Your task to perform on an android device: toggle sleep mode Image 0: 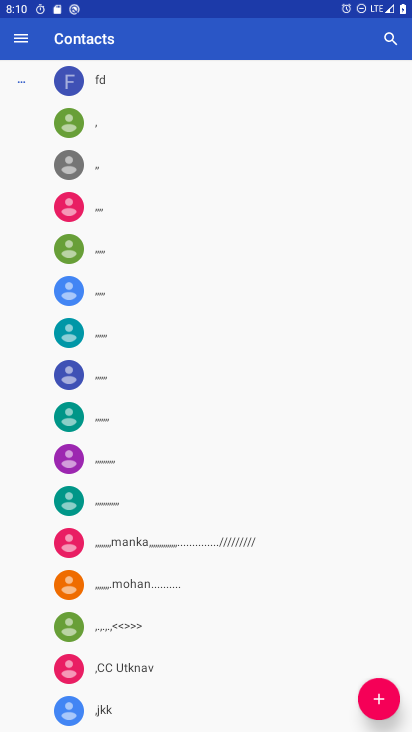
Step 0: press home button
Your task to perform on an android device: toggle sleep mode Image 1: 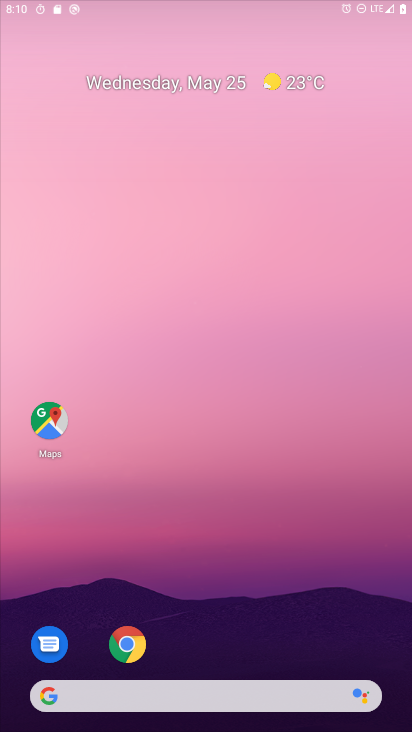
Step 1: drag from (372, 644) to (351, 62)
Your task to perform on an android device: toggle sleep mode Image 2: 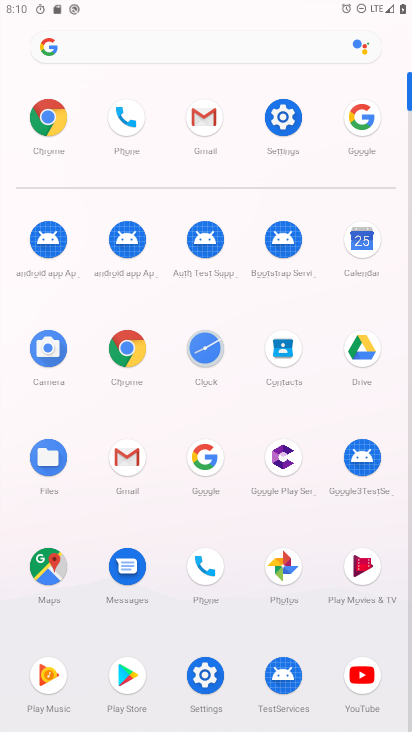
Step 2: click (282, 127)
Your task to perform on an android device: toggle sleep mode Image 3: 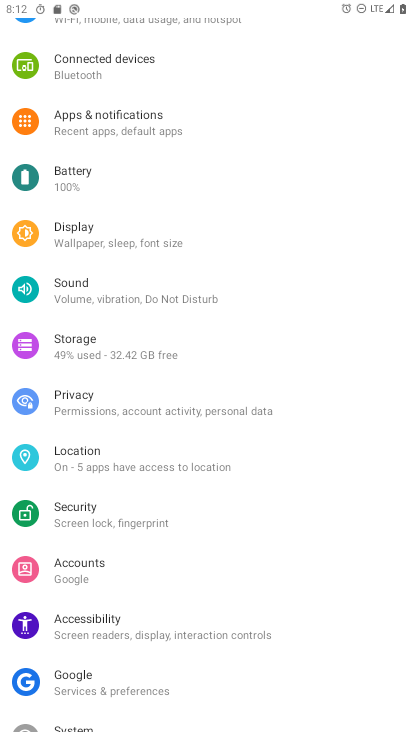
Step 3: task complete